Your task to perform on an android device: turn on the 12-hour format for clock Image 0: 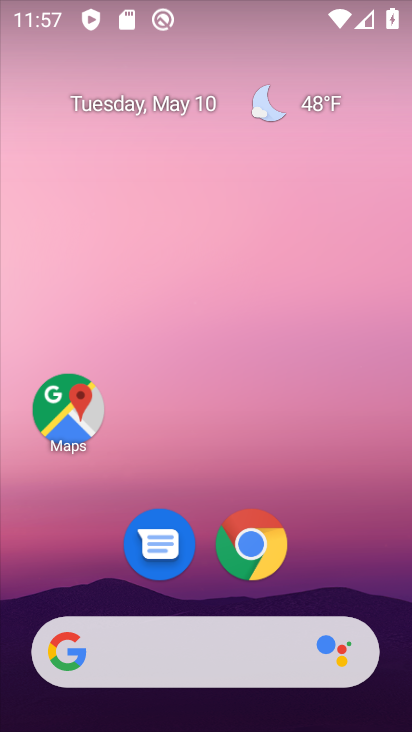
Step 0: drag from (182, 605) to (301, 55)
Your task to perform on an android device: turn on the 12-hour format for clock Image 1: 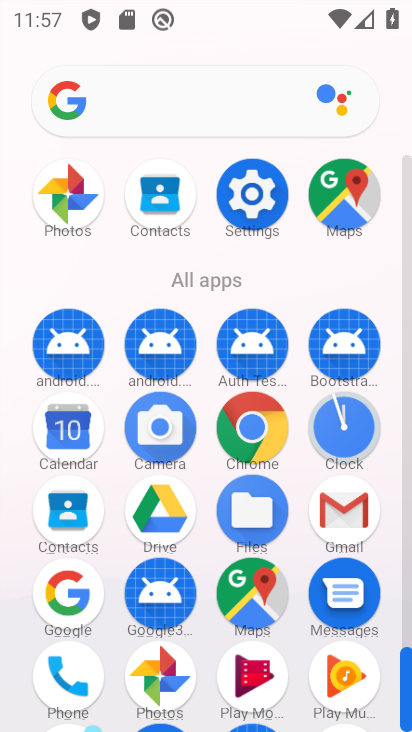
Step 1: click (348, 447)
Your task to perform on an android device: turn on the 12-hour format for clock Image 2: 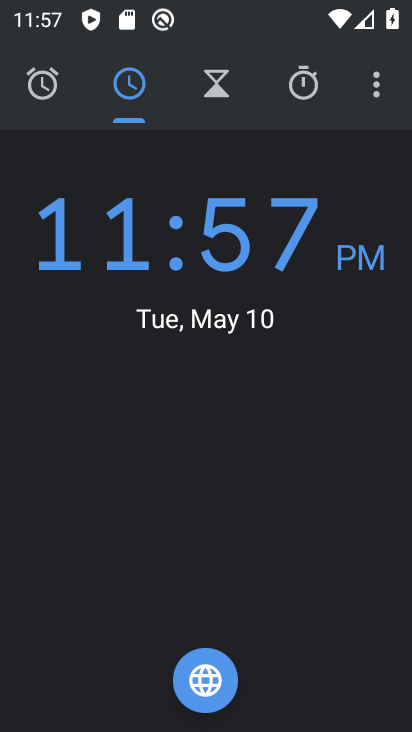
Step 2: click (379, 107)
Your task to perform on an android device: turn on the 12-hour format for clock Image 3: 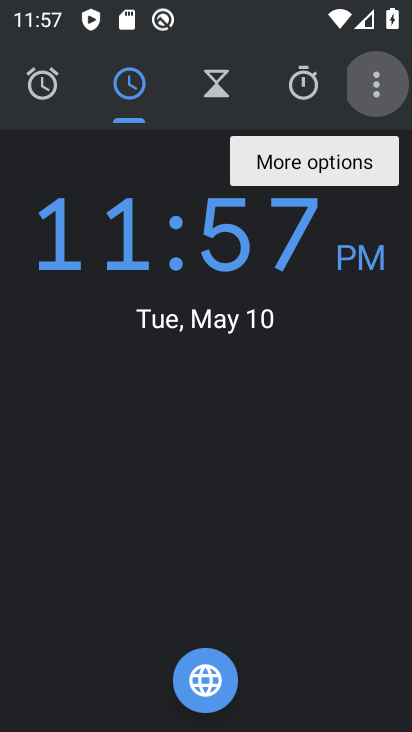
Step 3: click (379, 100)
Your task to perform on an android device: turn on the 12-hour format for clock Image 4: 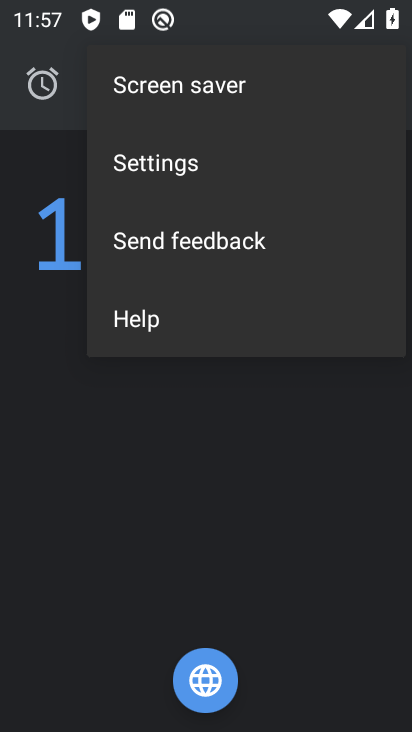
Step 4: click (257, 177)
Your task to perform on an android device: turn on the 12-hour format for clock Image 5: 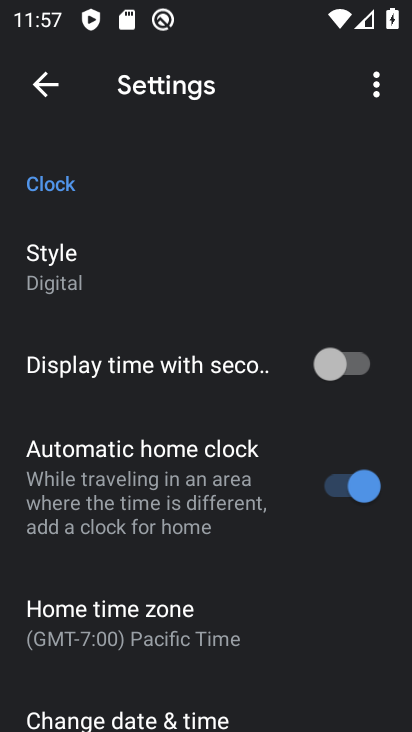
Step 5: drag from (174, 580) to (242, 315)
Your task to perform on an android device: turn on the 12-hour format for clock Image 6: 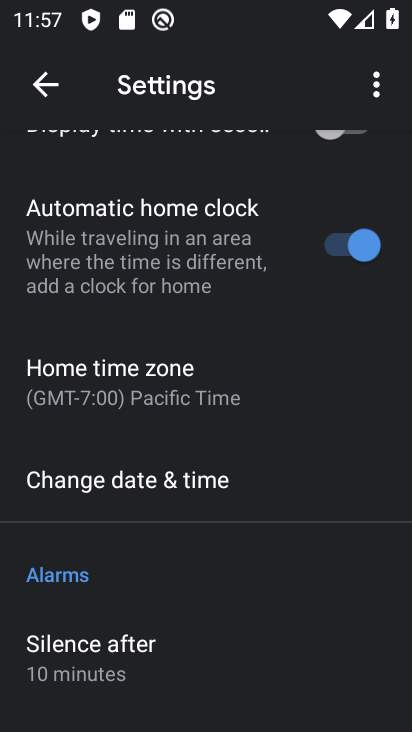
Step 6: click (224, 500)
Your task to perform on an android device: turn on the 12-hour format for clock Image 7: 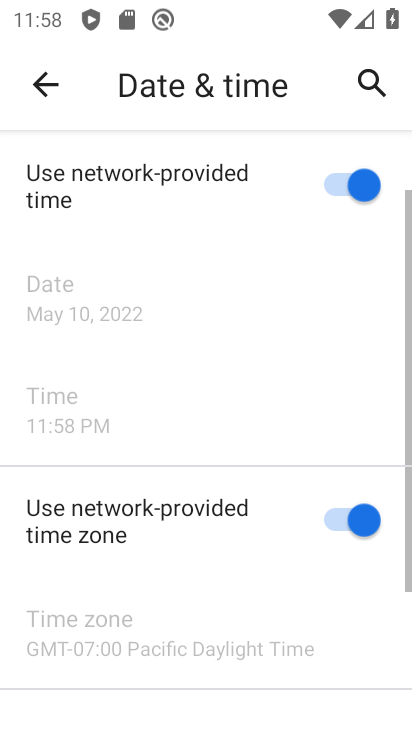
Step 7: task complete